Your task to perform on an android device: Play the last video I watched on Youtube Image 0: 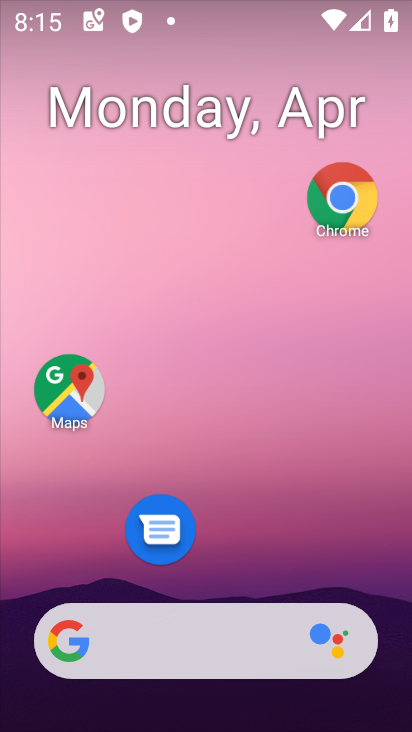
Step 0: drag from (204, 567) to (317, 43)
Your task to perform on an android device: Play the last video I watched on Youtube Image 1: 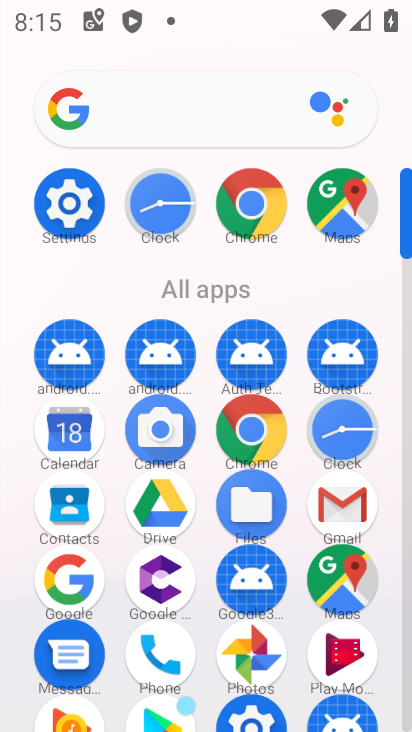
Step 1: drag from (245, 572) to (328, 51)
Your task to perform on an android device: Play the last video I watched on Youtube Image 2: 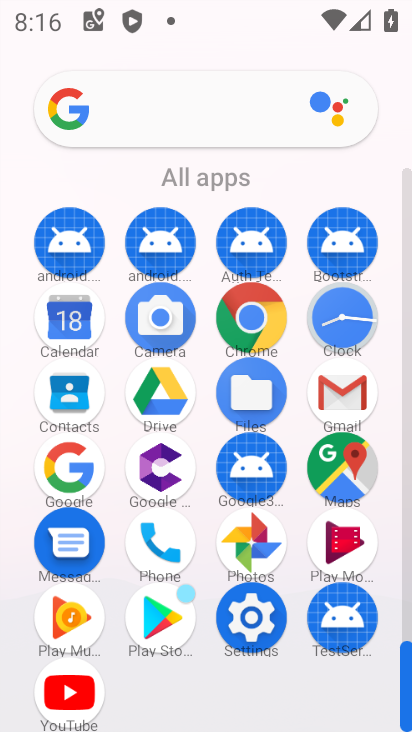
Step 2: click (73, 682)
Your task to perform on an android device: Play the last video I watched on Youtube Image 3: 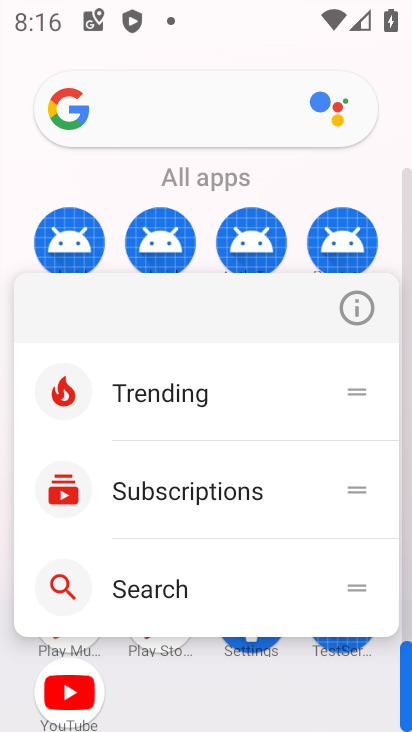
Step 3: click (74, 682)
Your task to perform on an android device: Play the last video I watched on Youtube Image 4: 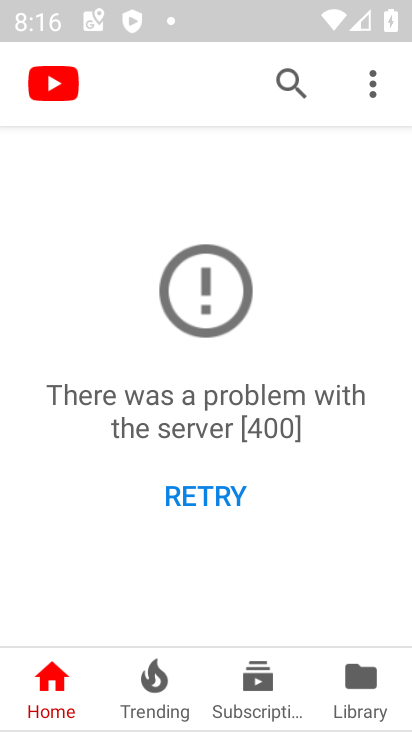
Step 4: click (372, 692)
Your task to perform on an android device: Play the last video I watched on Youtube Image 5: 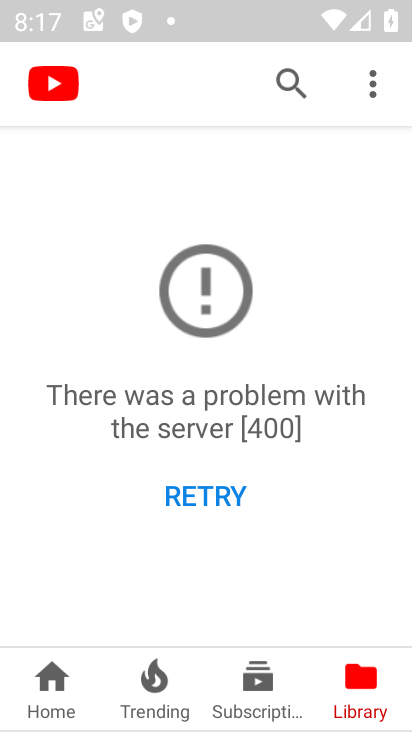
Step 5: click (357, 695)
Your task to perform on an android device: Play the last video I watched on Youtube Image 6: 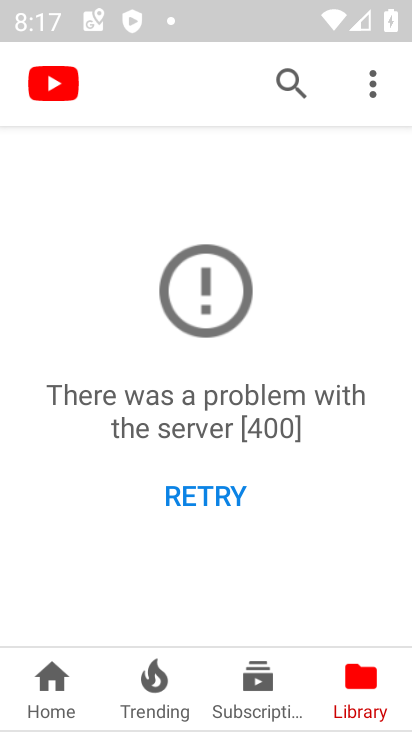
Step 6: click (204, 493)
Your task to perform on an android device: Play the last video I watched on Youtube Image 7: 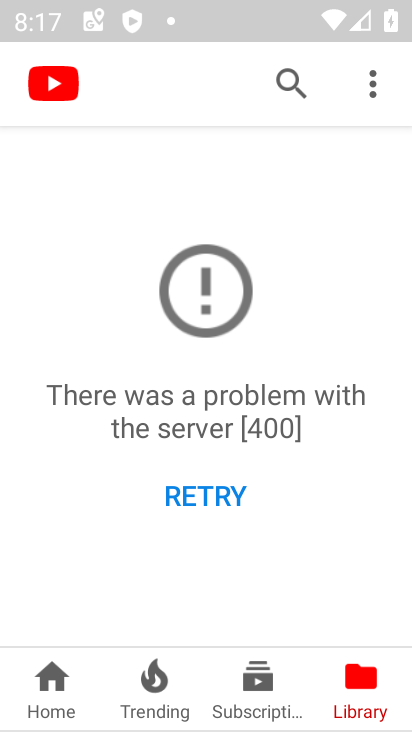
Step 7: click (361, 676)
Your task to perform on an android device: Play the last video I watched on Youtube Image 8: 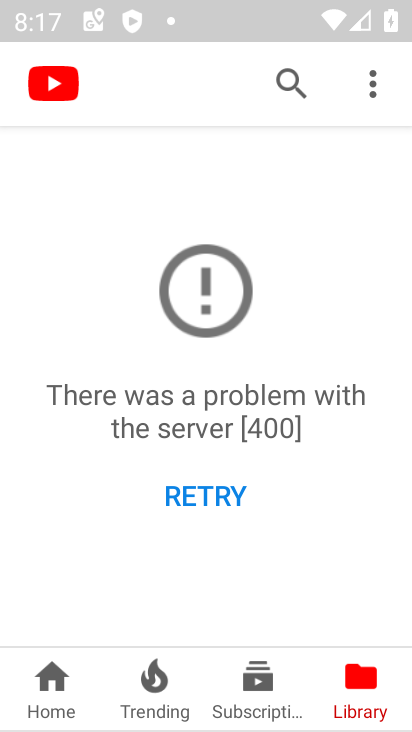
Step 8: task complete